Your task to perform on an android device: Open calendar and show me the second week of next month Image 0: 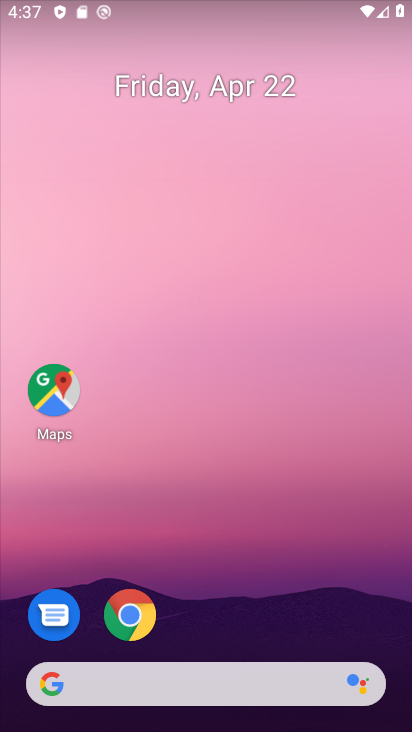
Step 0: drag from (280, 589) to (272, 17)
Your task to perform on an android device: Open calendar and show me the second week of next month Image 1: 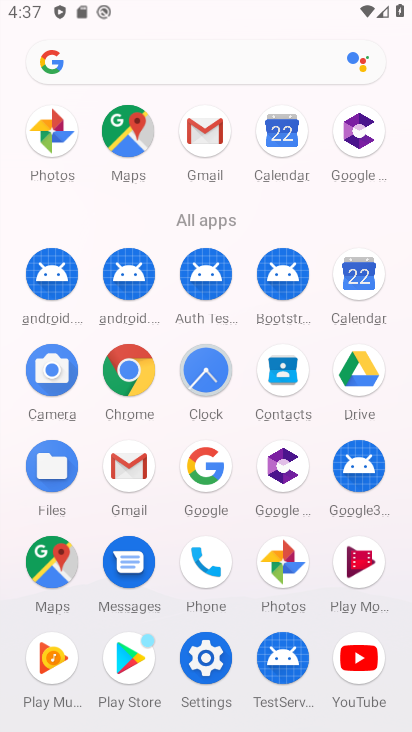
Step 1: drag from (7, 561) to (14, 232)
Your task to perform on an android device: Open calendar and show me the second week of next month Image 2: 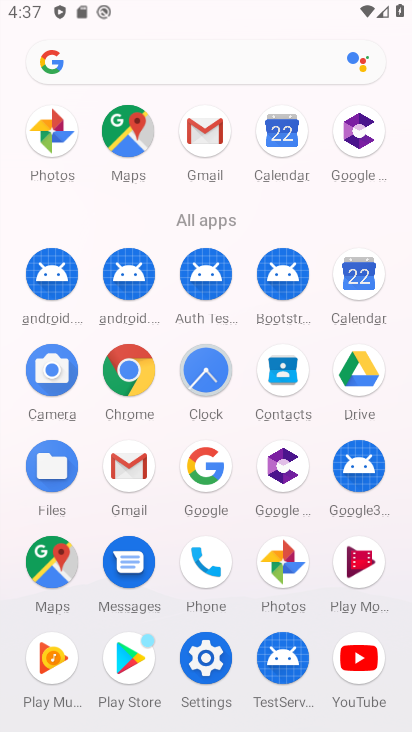
Step 2: click (354, 268)
Your task to perform on an android device: Open calendar and show me the second week of next month Image 3: 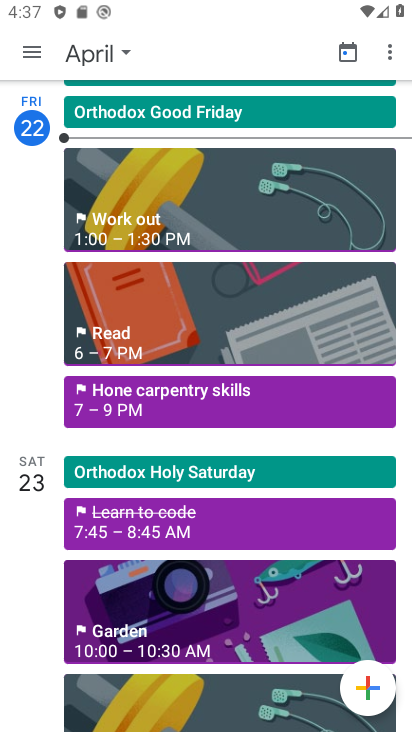
Step 3: click (91, 51)
Your task to perform on an android device: Open calendar and show me the second week of next month Image 4: 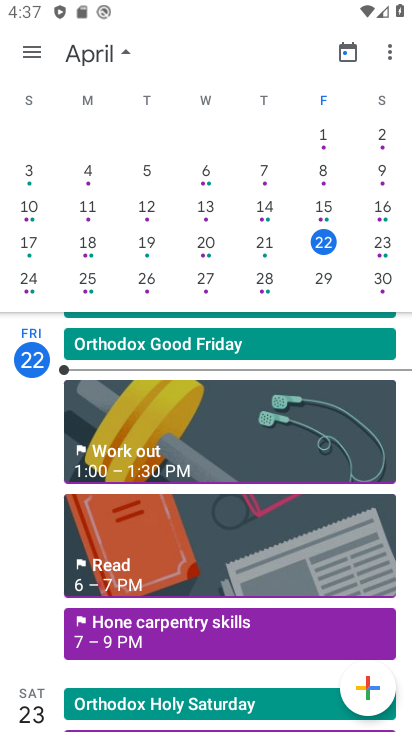
Step 4: drag from (394, 185) to (6, 59)
Your task to perform on an android device: Open calendar and show me the second week of next month Image 5: 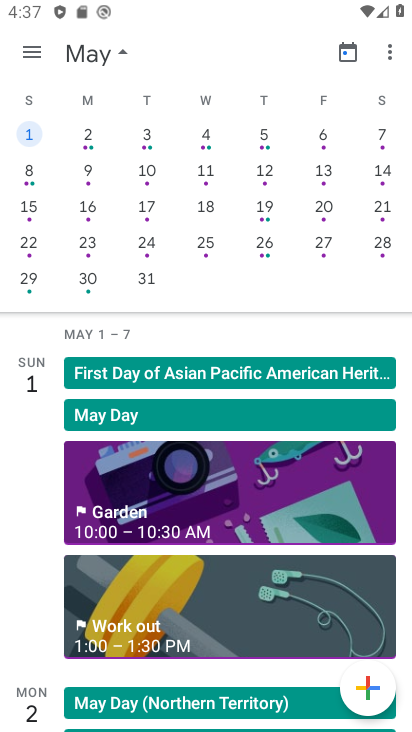
Step 5: click (30, 176)
Your task to perform on an android device: Open calendar and show me the second week of next month Image 6: 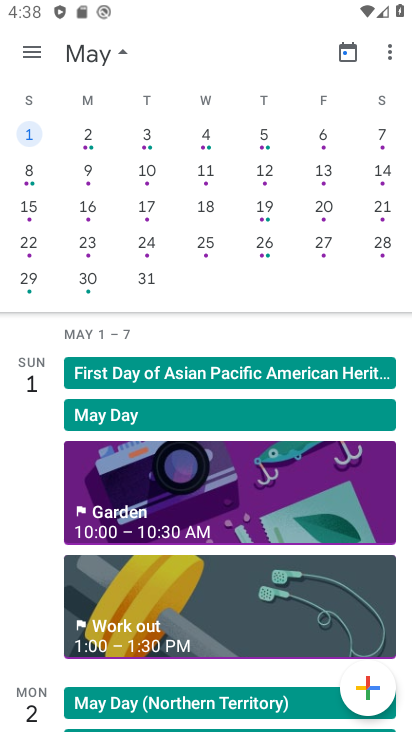
Step 6: click (30, 161)
Your task to perform on an android device: Open calendar and show me the second week of next month Image 7: 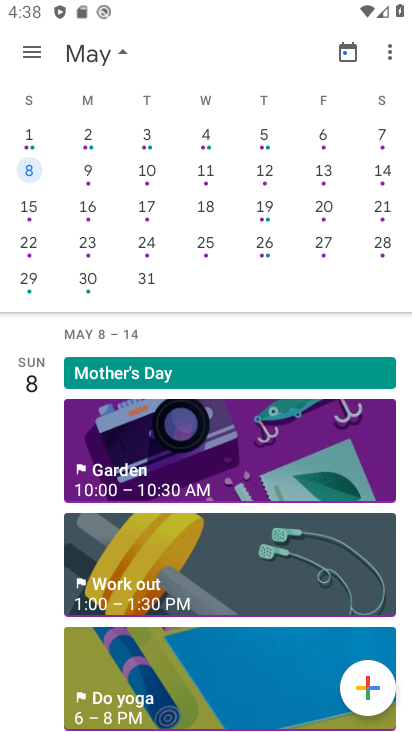
Step 7: click (26, 50)
Your task to perform on an android device: Open calendar and show me the second week of next month Image 8: 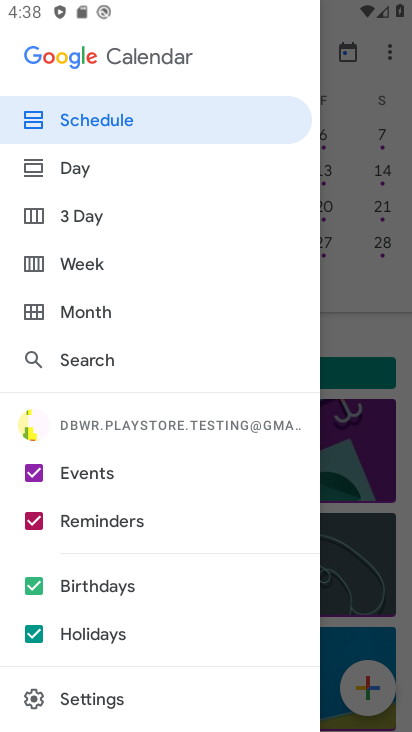
Step 8: click (95, 271)
Your task to perform on an android device: Open calendar and show me the second week of next month Image 9: 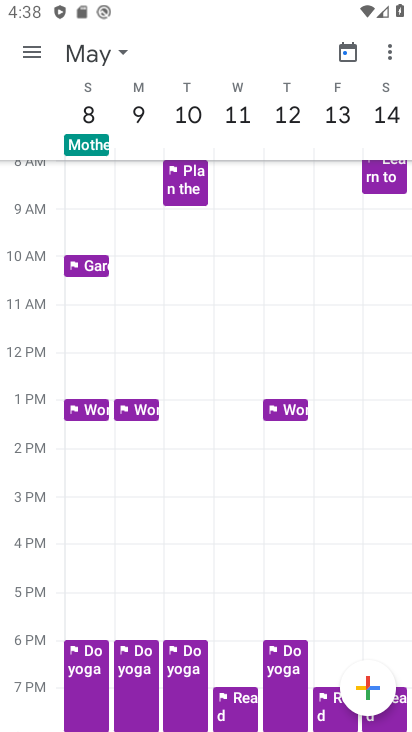
Step 9: task complete